Your task to perform on an android device: Open Chrome and go to the settings page Image 0: 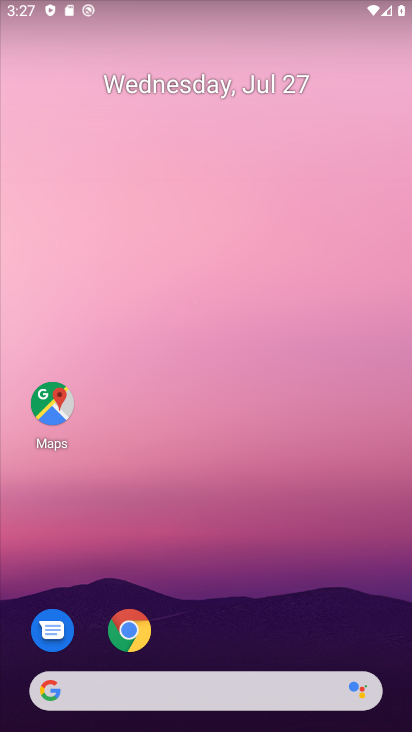
Step 0: press home button
Your task to perform on an android device: Open Chrome and go to the settings page Image 1: 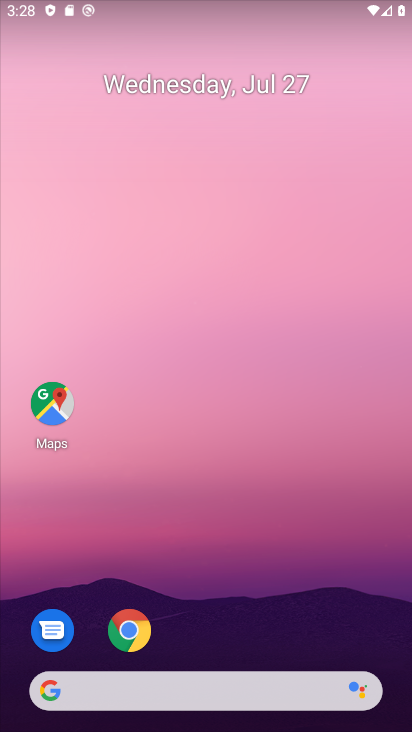
Step 1: drag from (196, 652) to (205, 109)
Your task to perform on an android device: Open Chrome and go to the settings page Image 2: 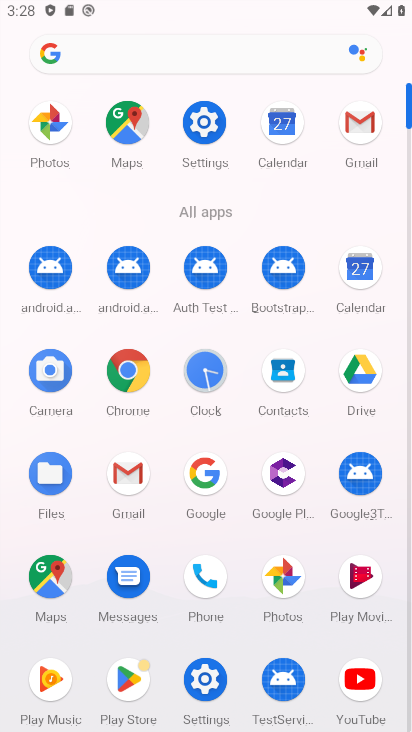
Step 2: click (125, 368)
Your task to perform on an android device: Open Chrome and go to the settings page Image 3: 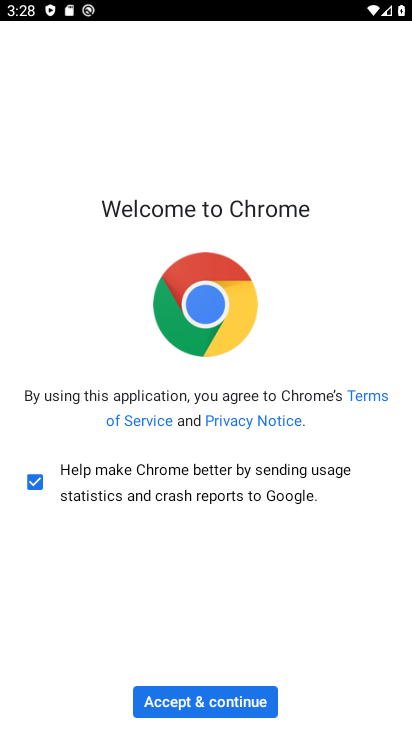
Step 3: click (200, 696)
Your task to perform on an android device: Open Chrome and go to the settings page Image 4: 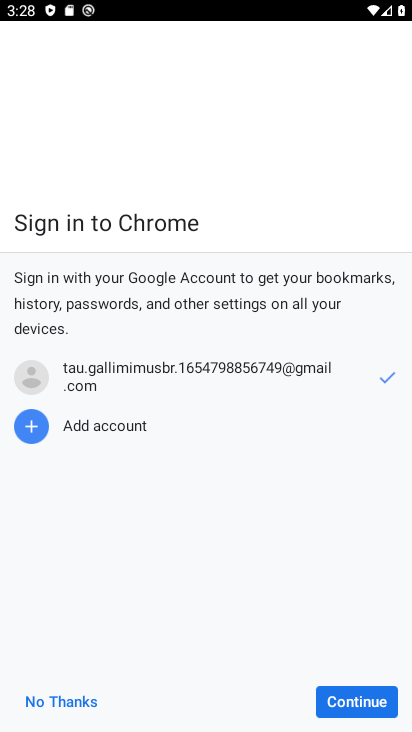
Step 4: click (366, 701)
Your task to perform on an android device: Open Chrome and go to the settings page Image 5: 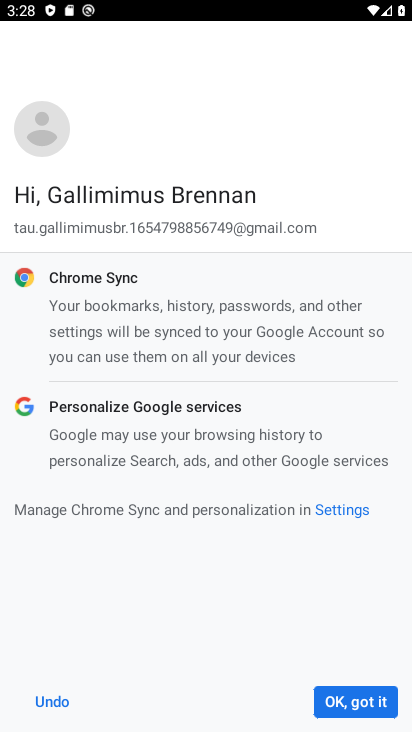
Step 5: click (351, 709)
Your task to perform on an android device: Open Chrome and go to the settings page Image 6: 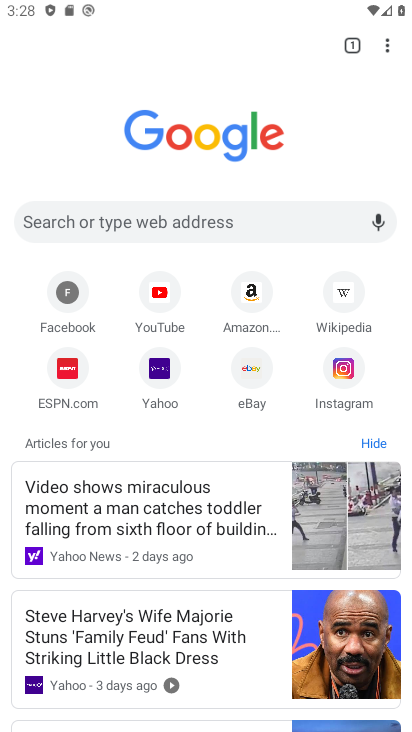
Step 6: click (386, 42)
Your task to perform on an android device: Open Chrome and go to the settings page Image 7: 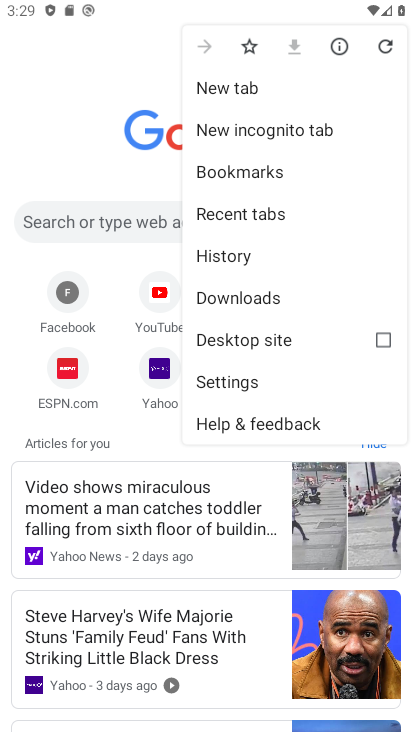
Step 7: click (249, 379)
Your task to perform on an android device: Open Chrome and go to the settings page Image 8: 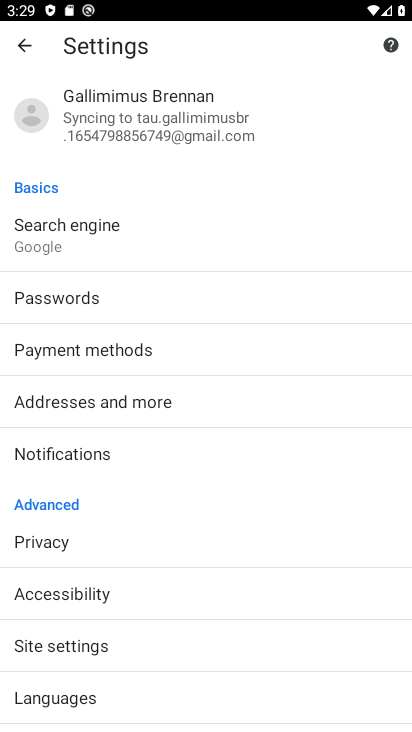
Step 8: task complete